Your task to perform on an android device: Open Android settings Image 0: 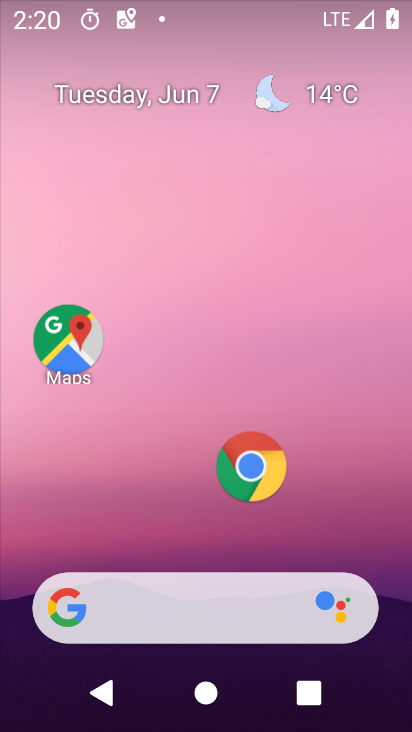
Step 0: drag from (153, 717) to (99, 130)
Your task to perform on an android device: Open Android settings Image 1: 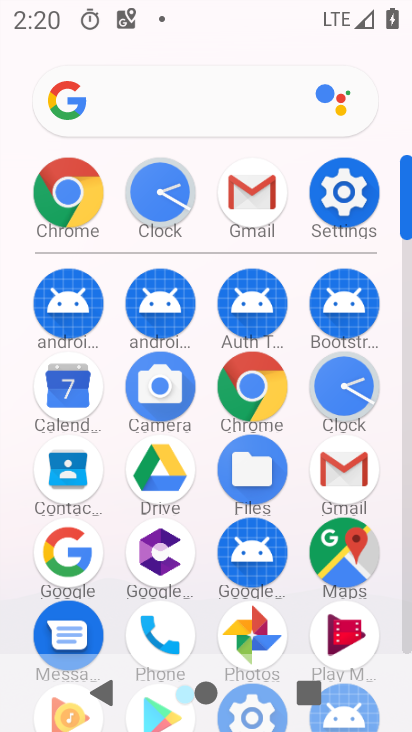
Step 1: click (340, 192)
Your task to perform on an android device: Open Android settings Image 2: 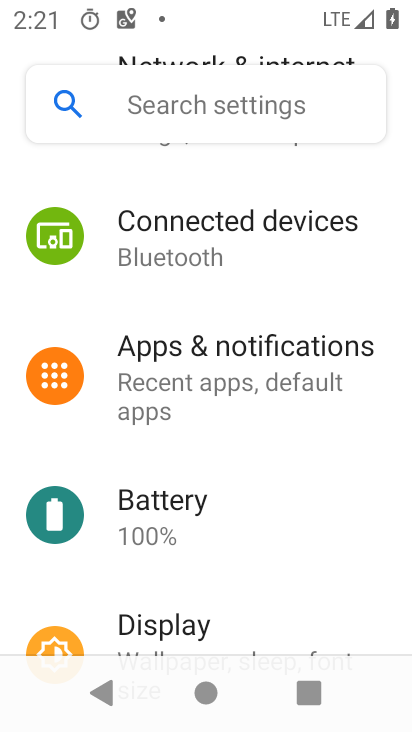
Step 2: task complete